Your task to perform on an android device: Go to wifi settings Image 0: 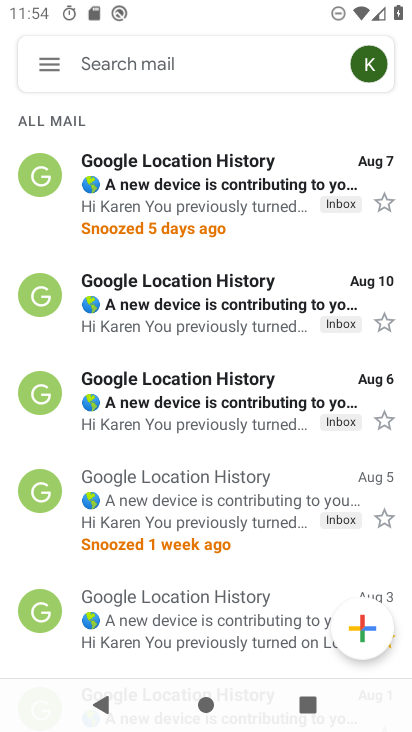
Step 0: press home button
Your task to perform on an android device: Go to wifi settings Image 1: 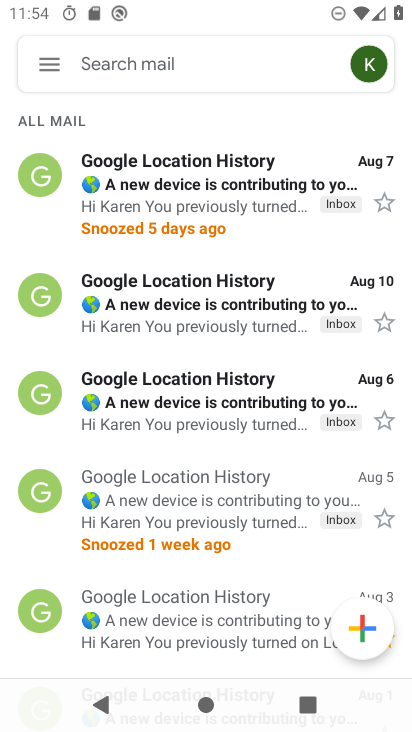
Step 1: press home button
Your task to perform on an android device: Go to wifi settings Image 2: 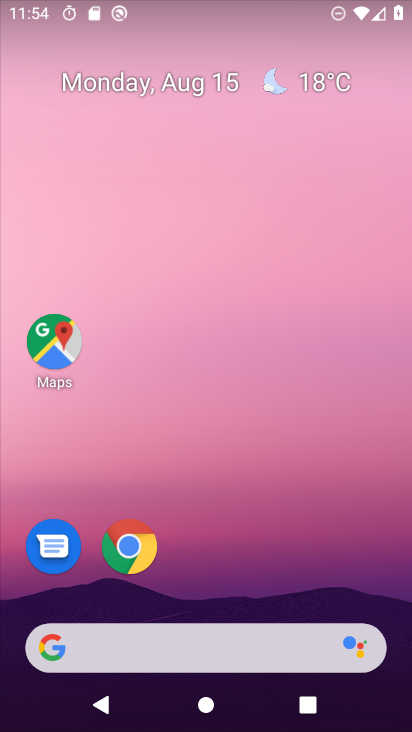
Step 2: drag from (242, 609) to (217, 84)
Your task to perform on an android device: Go to wifi settings Image 3: 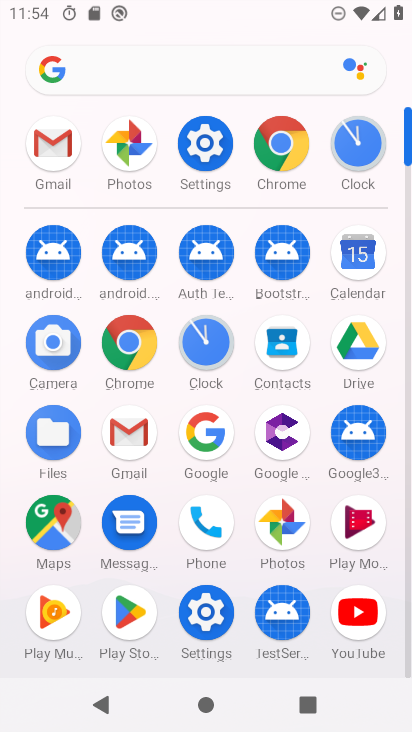
Step 3: click (209, 137)
Your task to perform on an android device: Go to wifi settings Image 4: 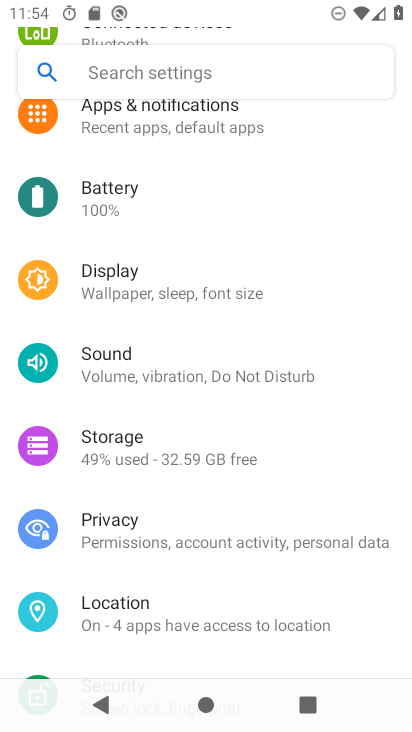
Step 4: drag from (162, 144) to (173, 616)
Your task to perform on an android device: Go to wifi settings Image 5: 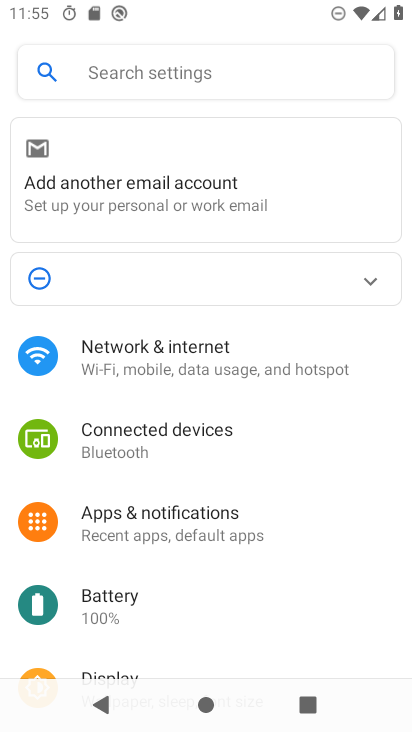
Step 5: click (128, 357)
Your task to perform on an android device: Go to wifi settings Image 6: 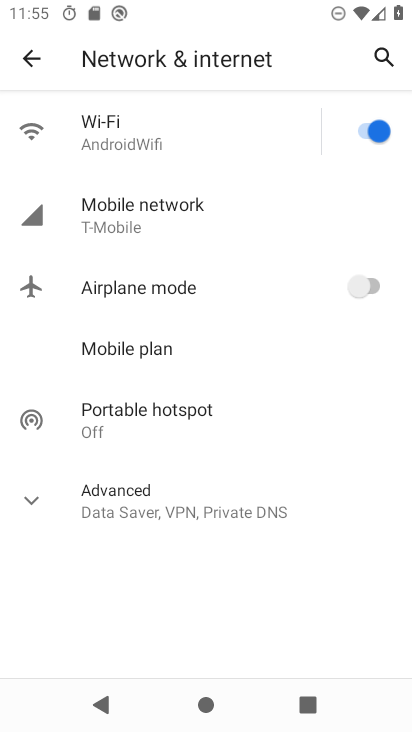
Step 6: click (123, 138)
Your task to perform on an android device: Go to wifi settings Image 7: 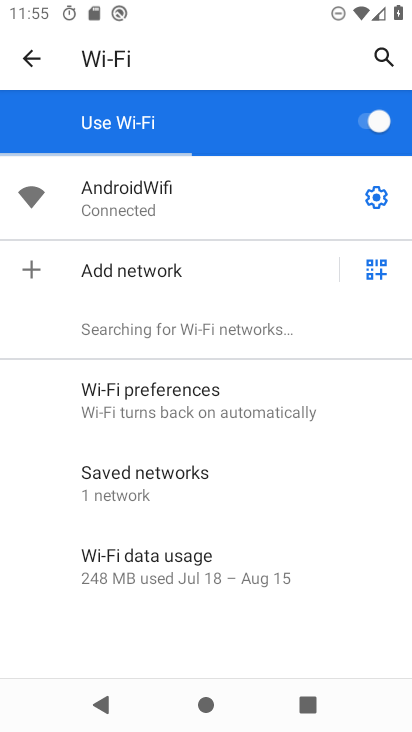
Step 7: task complete